Your task to perform on an android device: turn on bluetooth scan Image 0: 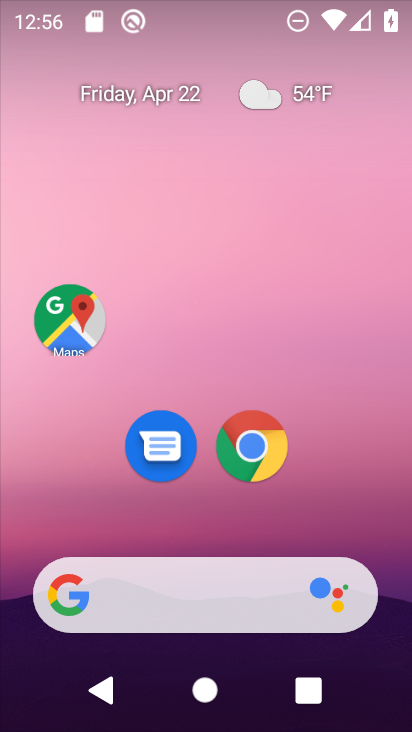
Step 0: drag from (397, 524) to (330, 122)
Your task to perform on an android device: turn on bluetooth scan Image 1: 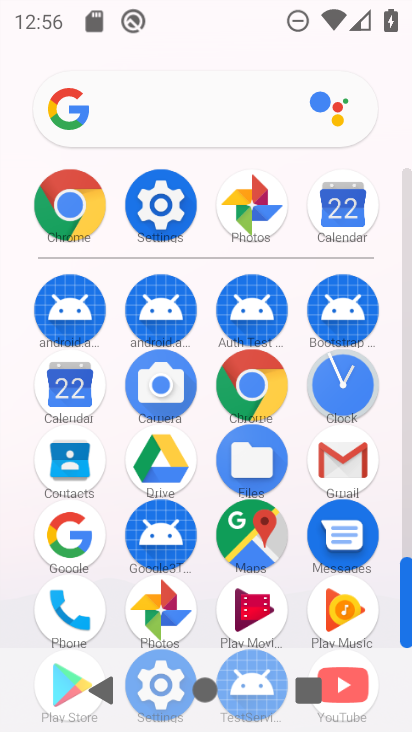
Step 1: click (174, 197)
Your task to perform on an android device: turn on bluetooth scan Image 2: 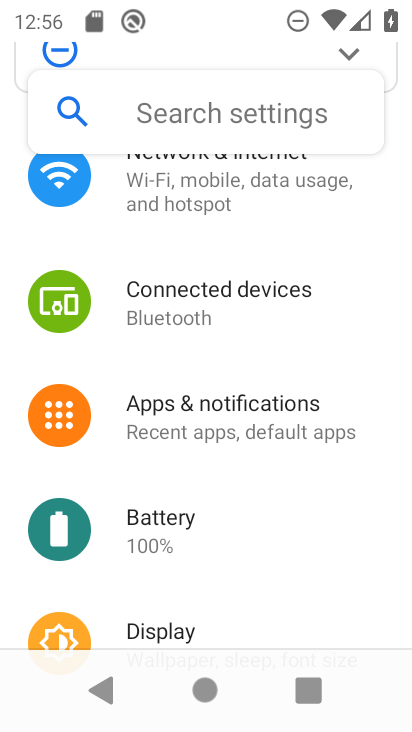
Step 2: drag from (262, 569) to (234, 229)
Your task to perform on an android device: turn on bluetooth scan Image 3: 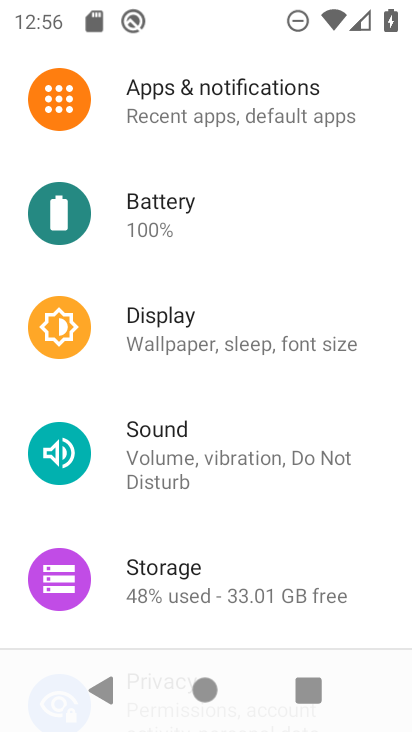
Step 3: drag from (263, 526) to (250, 41)
Your task to perform on an android device: turn on bluetooth scan Image 4: 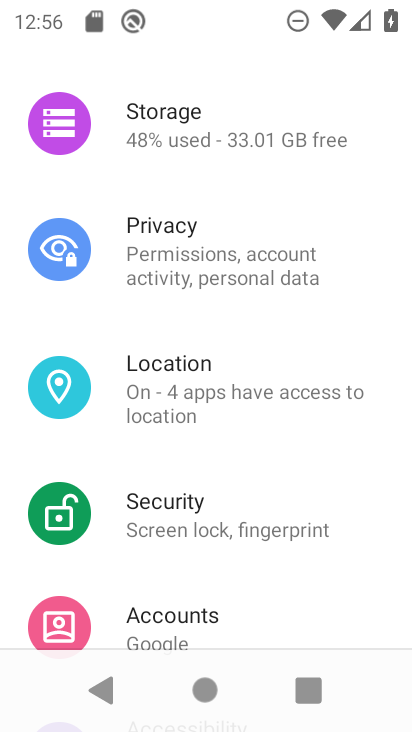
Step 4: click (279, 397)
Your task to perform on an android device: turn on bluetooth scan Image 5: 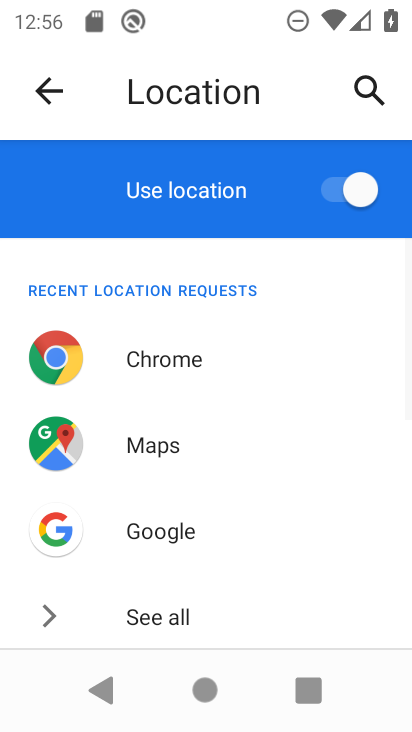
Step 5: drag from (315, 563) to (279, 177)
Your task to perform on an android device: turn on bluetooth scan Image 6: 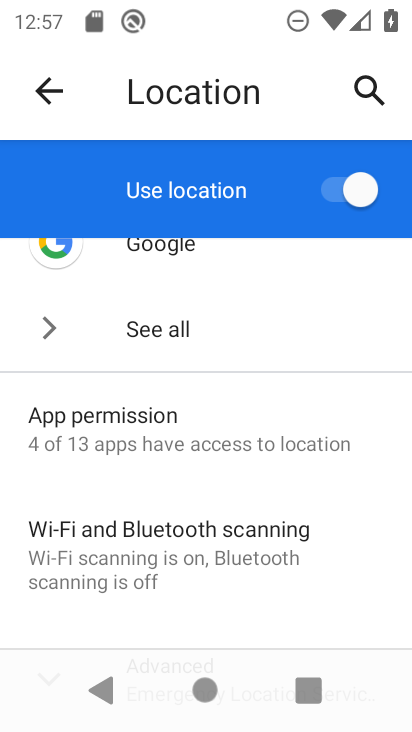
Step 6: click (281, 542)
Your task to perform on an android device: turn on bluetooth scan Image 7: 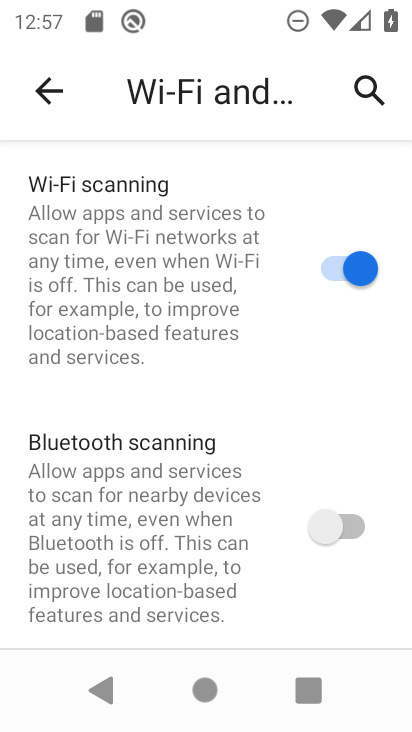
Step 7: click (358, 540)
Your task to perform on an android device: turn on bluetooth scan Image 8: 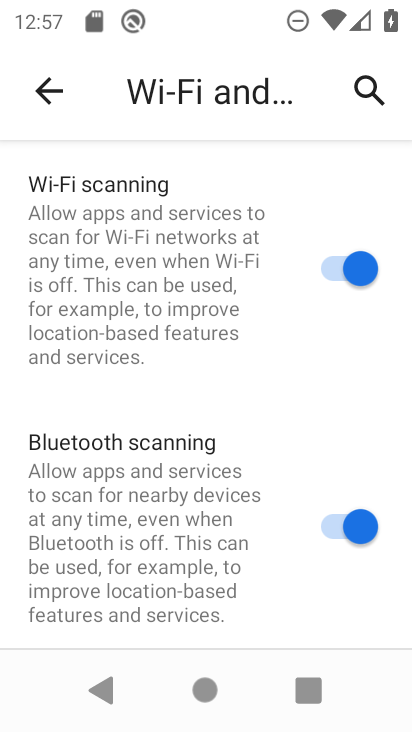
Step 8: task complete